Your task to perform on an android device: Show me productivity apps on the Play Store Image 0: 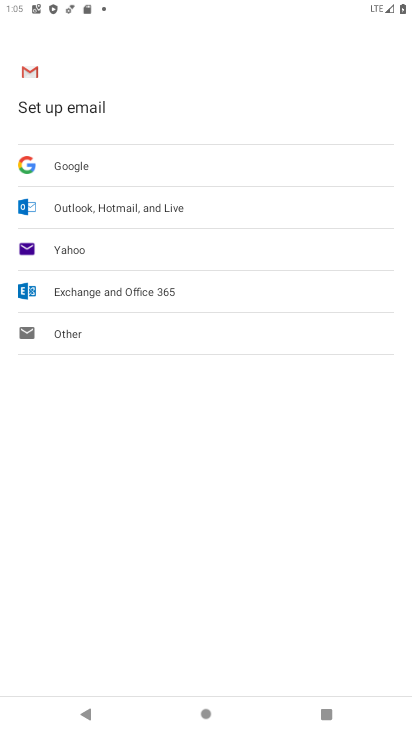
Step 0: press home button
Your task to perform on an android device: Show me productivity apps on the Play Store Image 1: 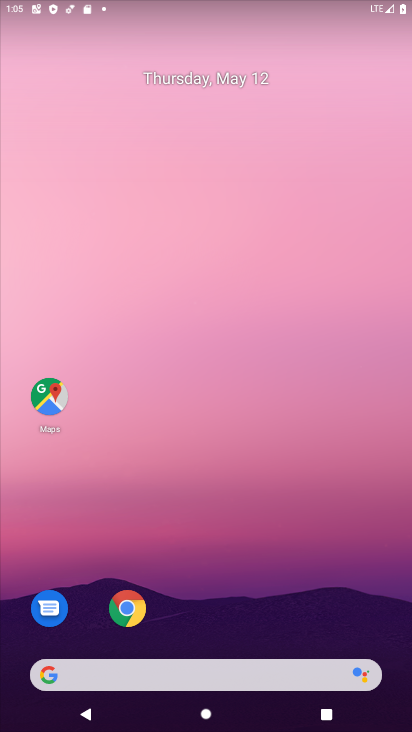
Step 1: drag from (327, 625) to (338, 9)
Your task to perform on an android device: Show me productivity apps on the Play Store Image 2: 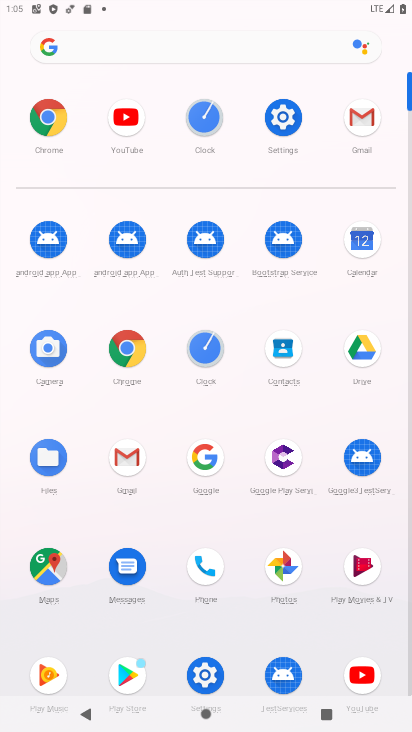
Step 2: click (121, 670)
Your task to perform on an android device: Show me productivity apps on the Play Store Image 3: 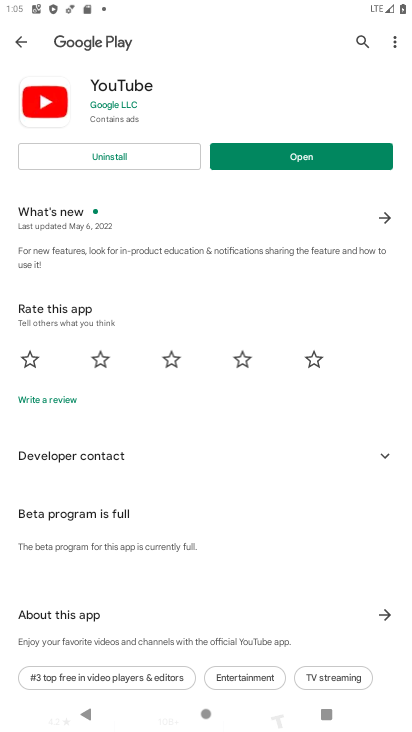
Step 3: click (23, 46)
Your task to perform on an android device: Show me productivity apps on the Play Store Image 4: 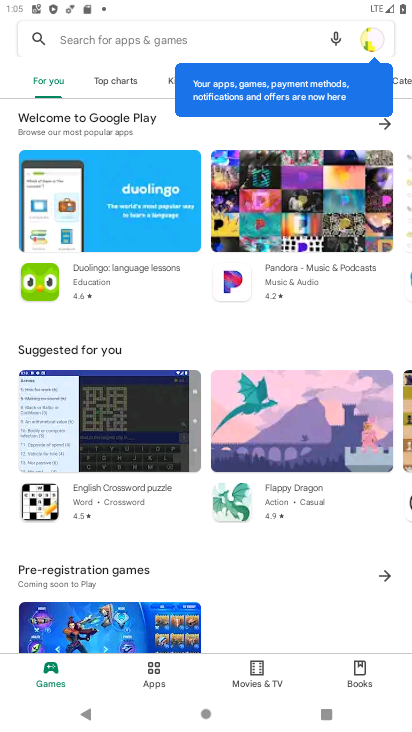
Step 4: click (159, 674)
Your task to perform on an android device: Show me productivity apps on the Play Store Image 5: 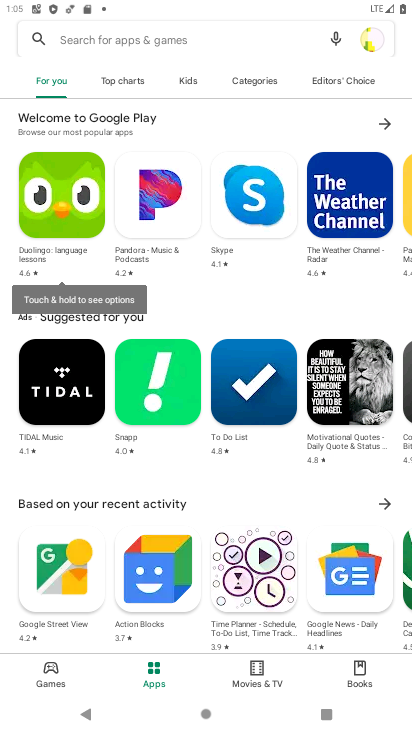
Step 5: click (270, 85)
Your task to perform on an android device: Show me productivity apps on the Play Store Image 6: 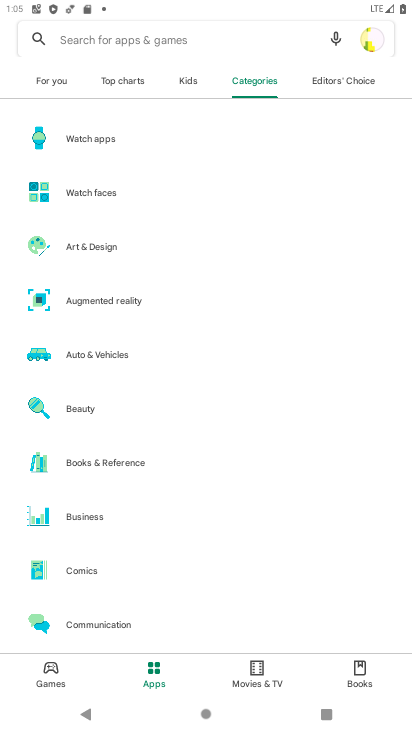
Step 6: drag from (232, 509) to (247, 14)
Your task to perform on an android device: Show me productivity apps on the Play Store Image 7: 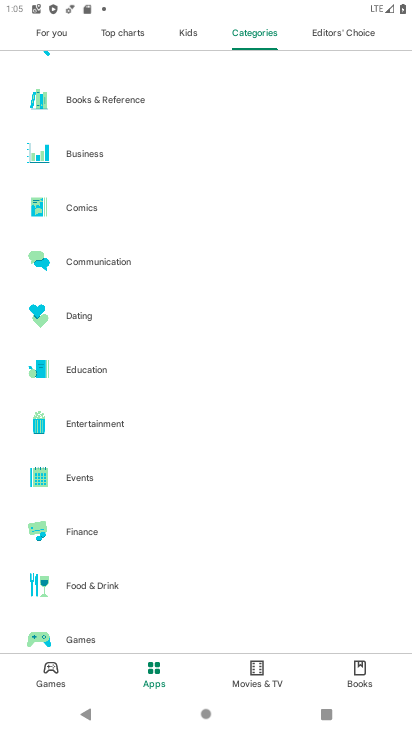
Step 7: drag from (249, 577) to (217, 23)
Your task to perform on an android device: Show me productivity apps on the Play Store Image 8: 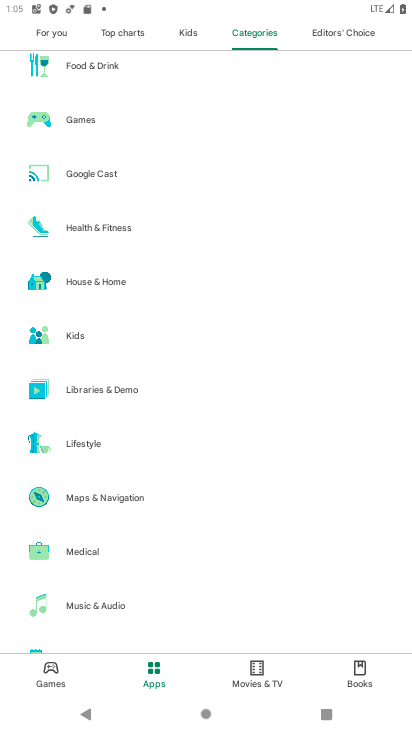
Step 8: drag from (169, 513) to (157, 58)
Your task to perform on an android device: Show me productivity apps on the Play Store Image 9: 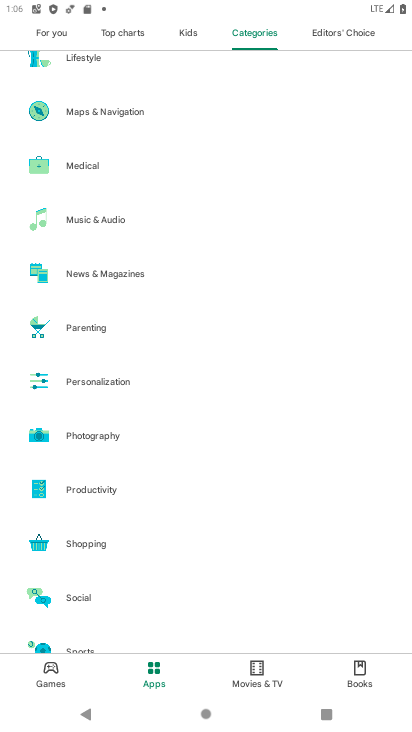
Step 9: click (69, 492)
Your task to perform on an android device: Show me productivity apps on the Play Store Image 10: 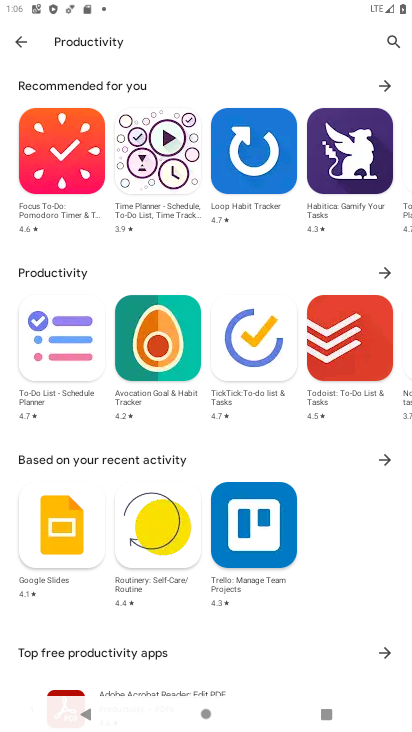
Step 10: task complete